Your task to perform on an android device: Open calendar and show me the second week of next month Image 0: 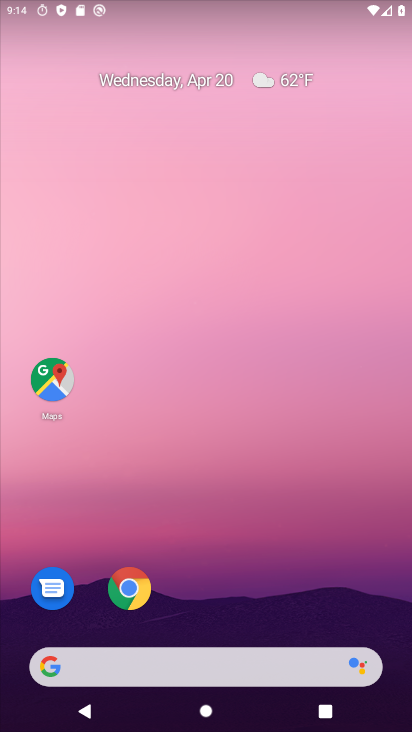
Step 0: drag from (272, 545) to (185, 38)
Your task to perform on an android device: Open calendar and show me the second week of next month Image 1: 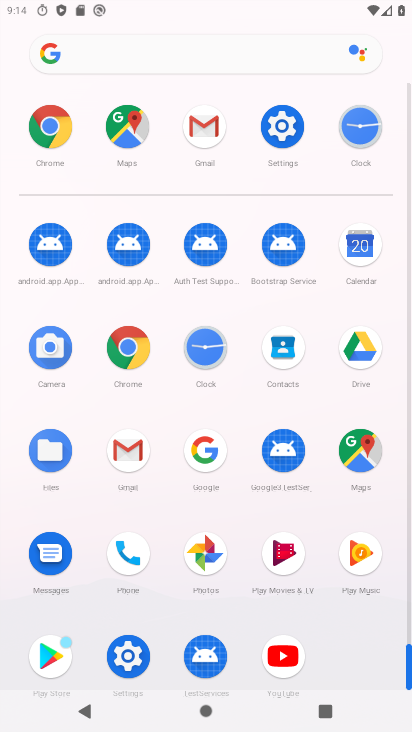
Step 1: drag from (12, 565) to (14, 278)
Your task to perform on an android device: Open calendar and show me the second week of next month Image 2: 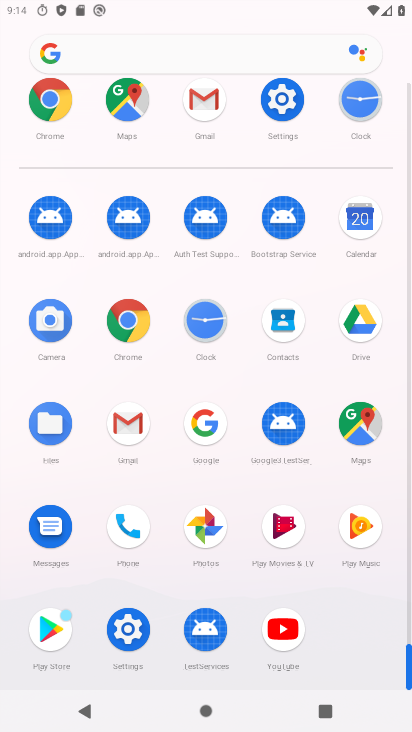
Step 2: drag from (19, 189) to (9, 367)
Your task to perform on an android device: Open calendar and show me the second week of next month Image 3: 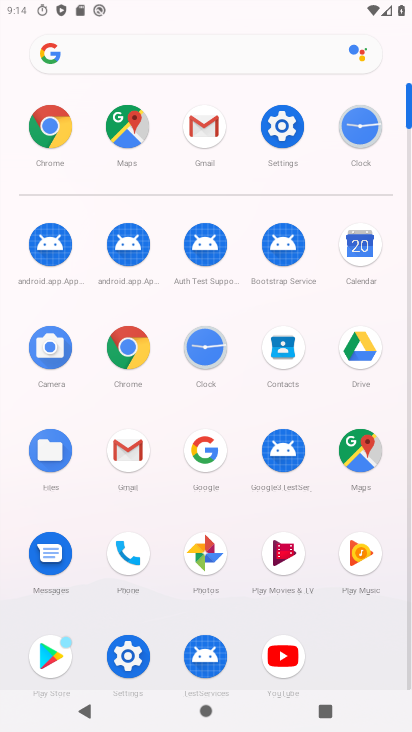
Step 3: click (356, 246)
Your task to perform on an android device: Open calendar and show me the second week of next month Image 4: 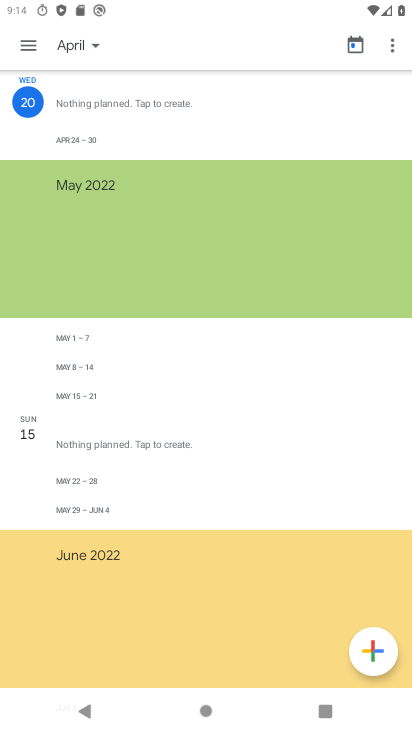
Step 4: click (30, 47)
Your task to perform on an android device: Open calendar and show me the second week of next month Image 5: 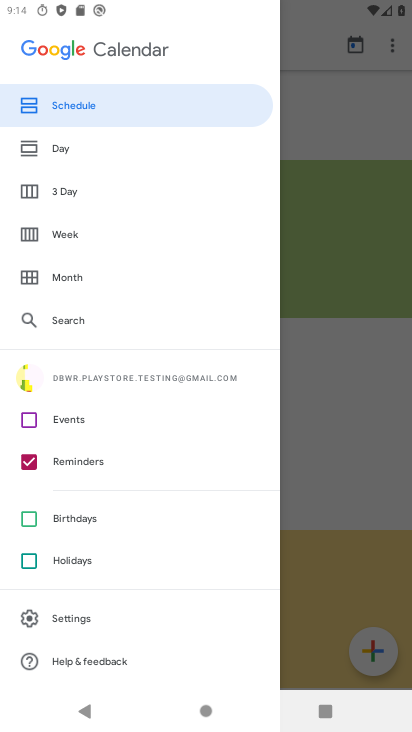
Step 5: click (75, 277)
Your task to perform on an android device: Open calendar and show me the second week of next month Image 6: 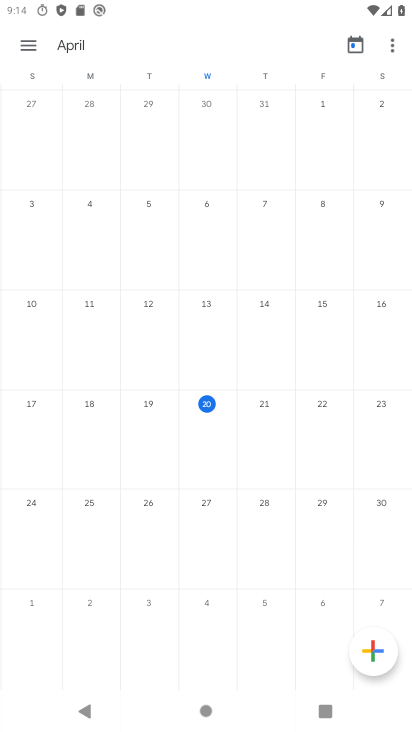
Step 6: drag from (336, 326) to (1, 260)
Your task to perform on an android device: Open calendar and show me the second week of next month Image 7: 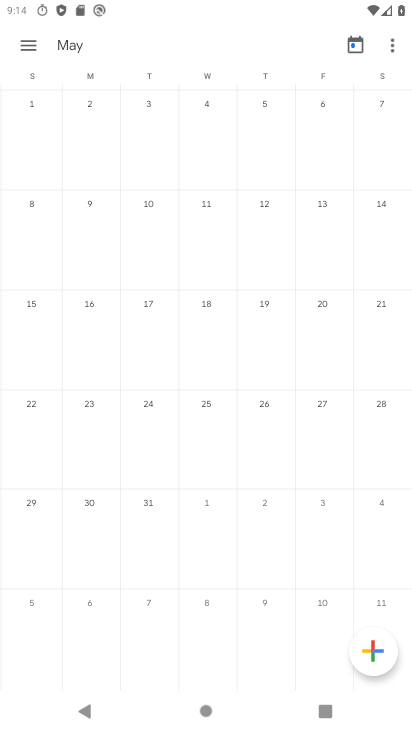
Step 7: click (38, 201)
Your task to perform on an android device: Open calendar and show me the second week of next month Image 8: 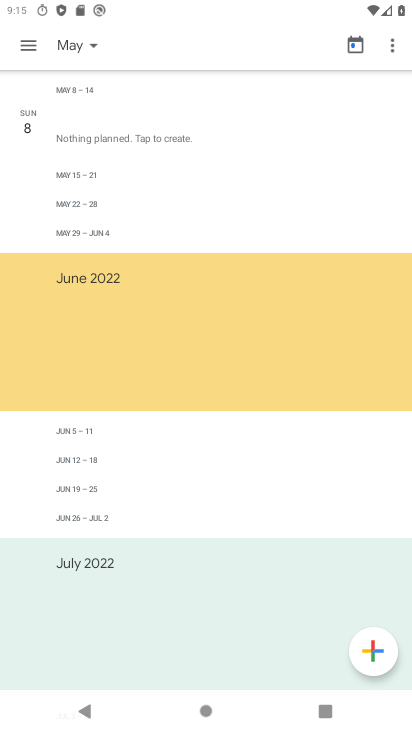
Step 8: click (27, 48)
Your task to perform on an android device: Open calendar and show me the second week of next month Image 9: 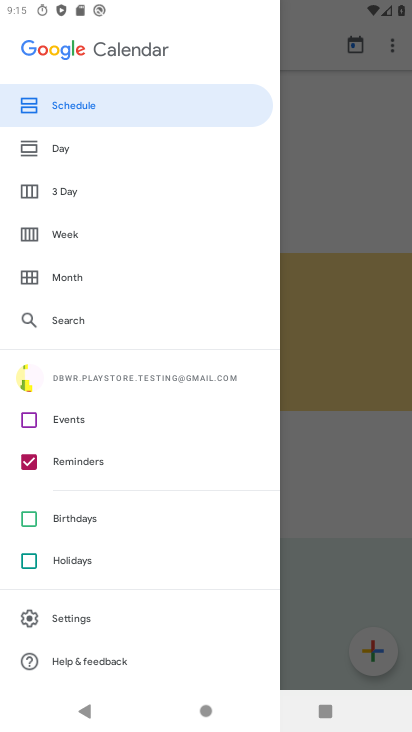
Step 9: click (82, 219)
Your task to perform on an android device: Open calendar and show me the second week of next month Image 10: 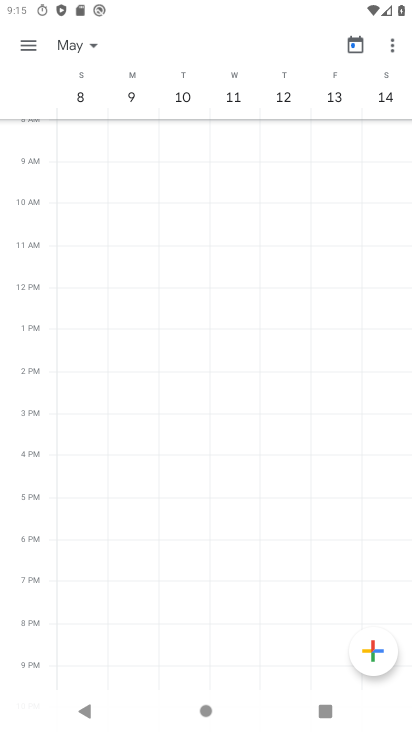
Step 10: task complete